Your task to perform on an android device: Do I have any events today? Image 0: 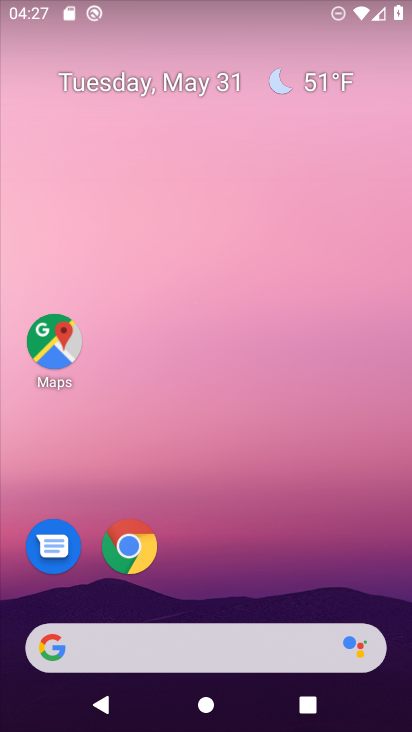
Step 0: drag from (247, 271) to (258, 194)
Your task to perform on an android device: Do I have any events today? Image 1: 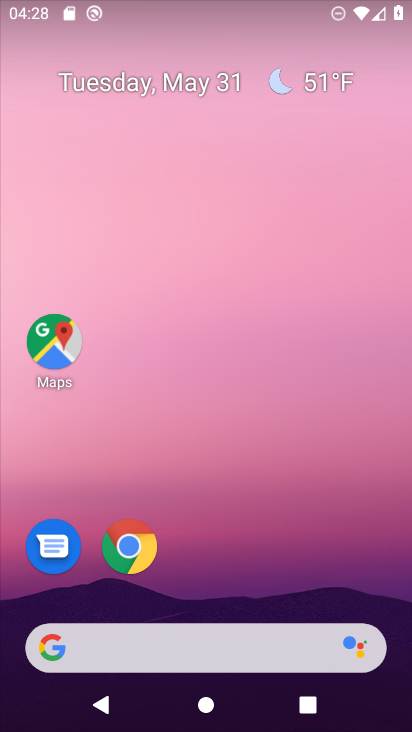
Step 1: drag from (178, 598) to (205, 96)
Your task to perform on an android device: Do I have any events today? Image 2: 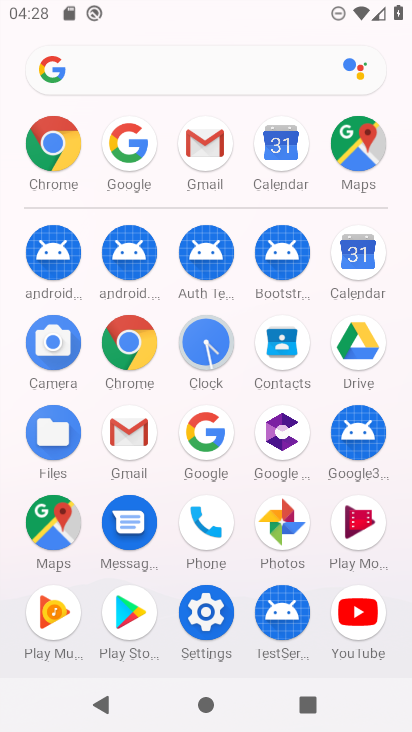
Step 2: click (356, 270)
Your task to perform on an android device: Do I have any events today? Image 3: 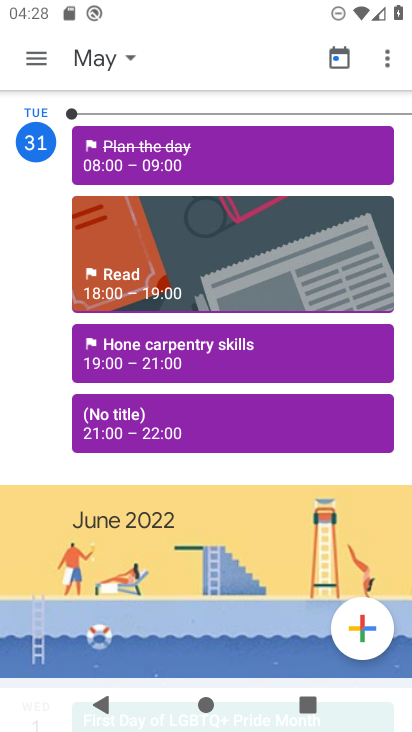
Step 3: task complete